Your task to perform on an android device: Open internet settings Image 0: 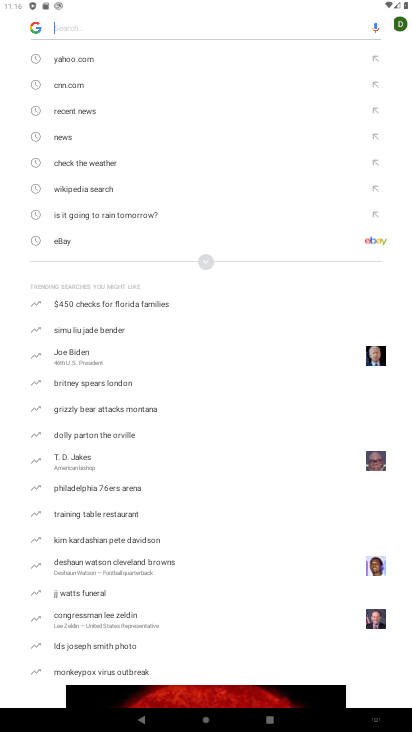
Step 0: press home button
Your task to perform on an android device: Open internet settings Image 1: 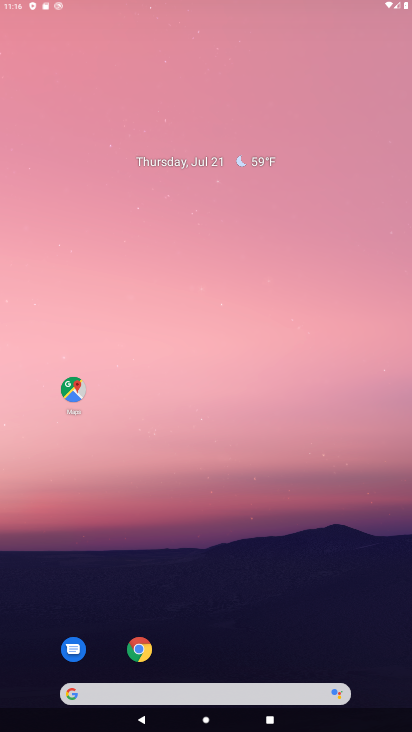
Step 1: drag from (190, 675) to (185, 97)
Your task to perform on an android device: Open internet settings Image 2: 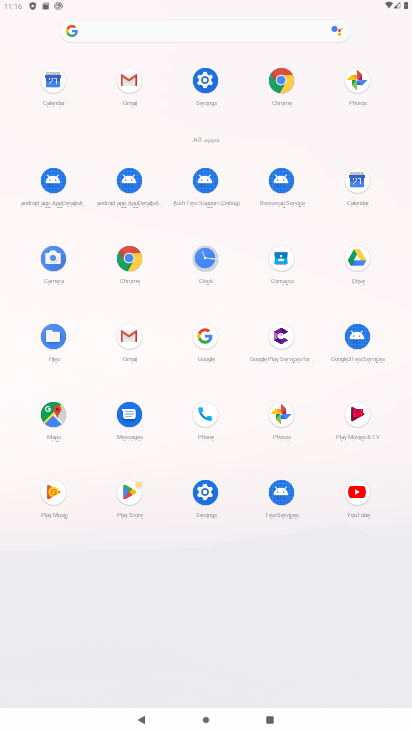
Step 2: click (218, 75)
Your task to perform on an android device: Open internet settings Image 3: 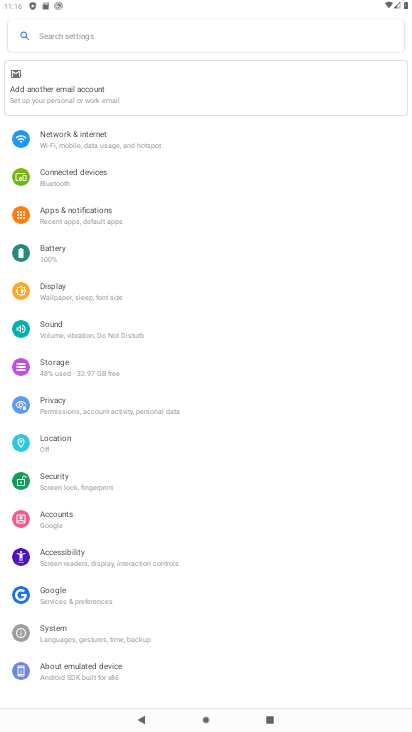
Step 3: click (109, 144)
Your task to perform on an android device: Open internet settings Image 4: 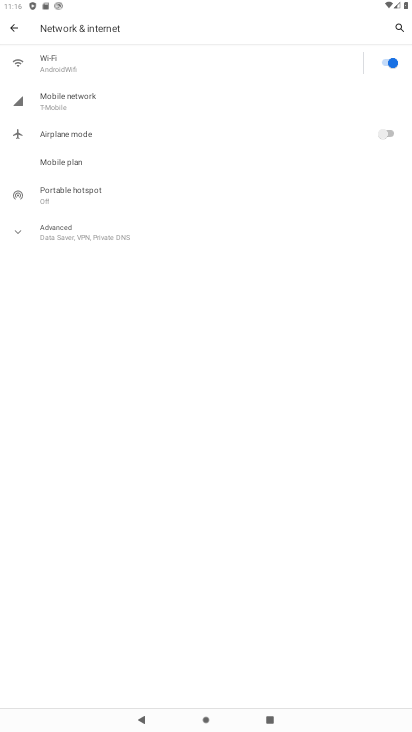
Step 4: task complete